Your task to perform on an android device: What's the weather? Image 0: 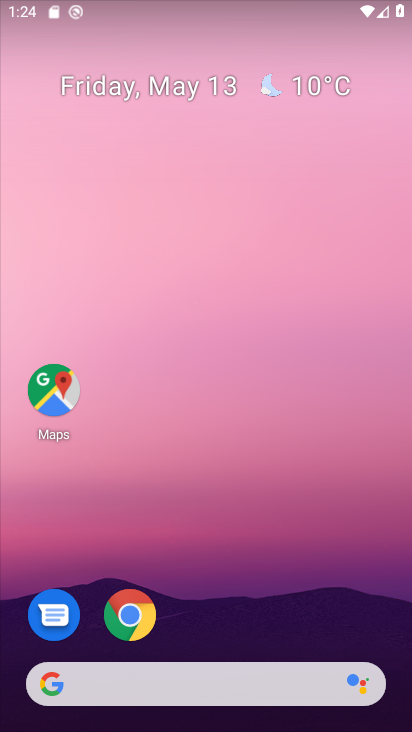
Step 0: click (298, 94)
Your task to perform on an android device: What's the weather? Image 1: 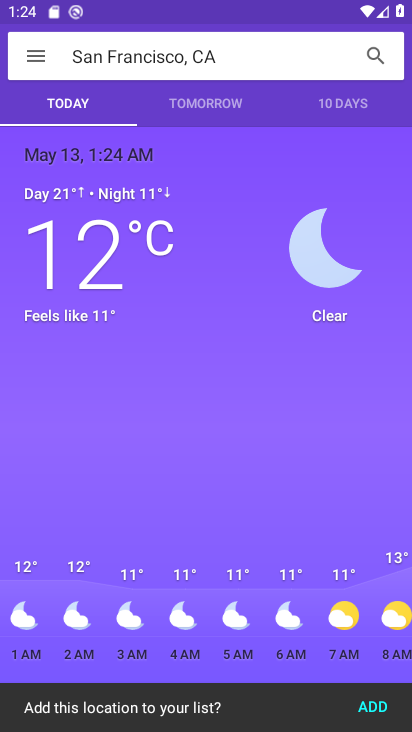
Step 1: task complete